Your task to perform on an android device: Open Maps and search for coffee Image 0: 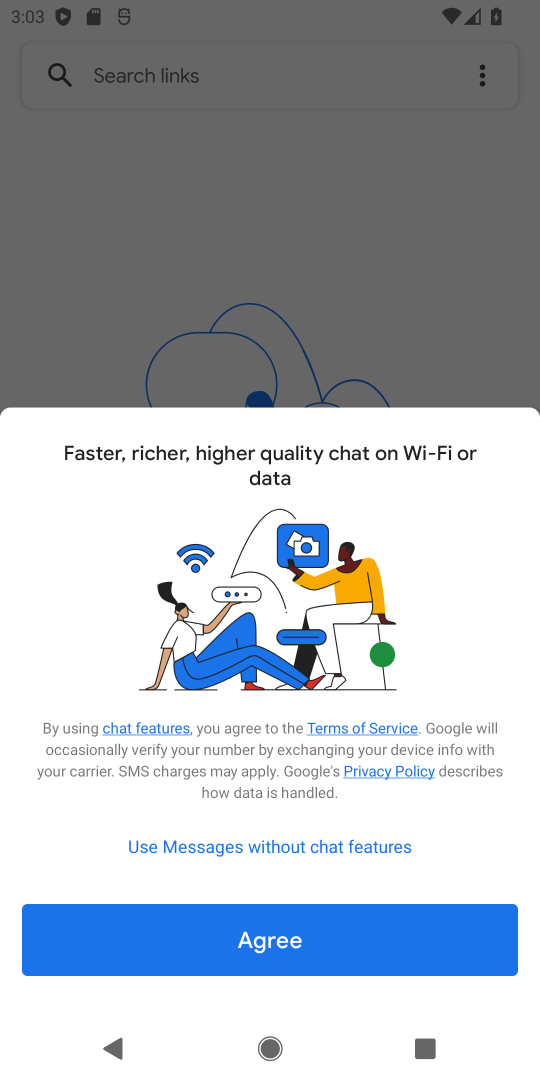
Step 0: press back button
Your task to perform on an android device: Open Maps and search for coffee Image 1: 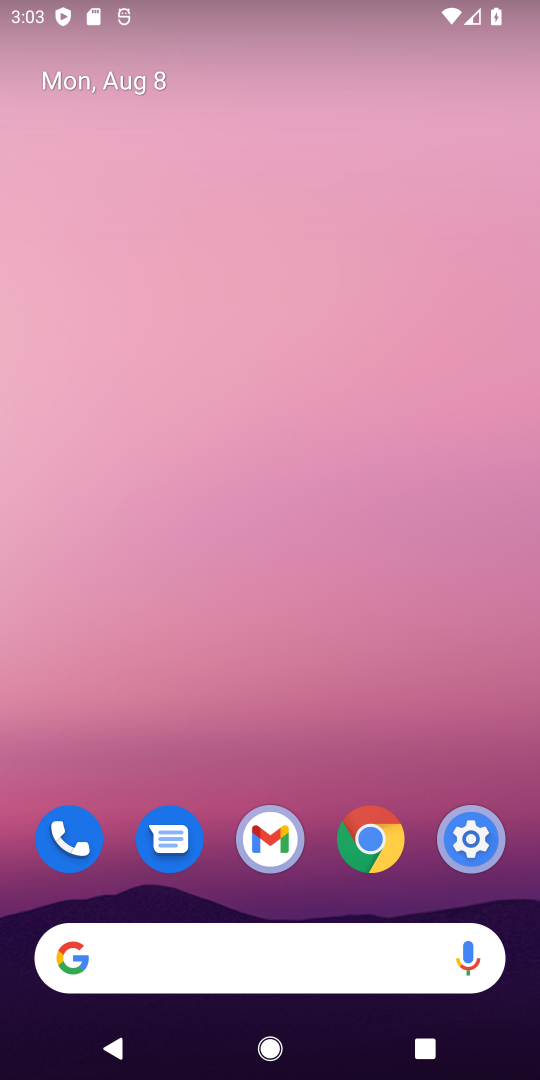
Step 1: drag from (304, 914) to (293, 105)
Your task to perform on an android device: Open Maps and search for coffee Image 2: 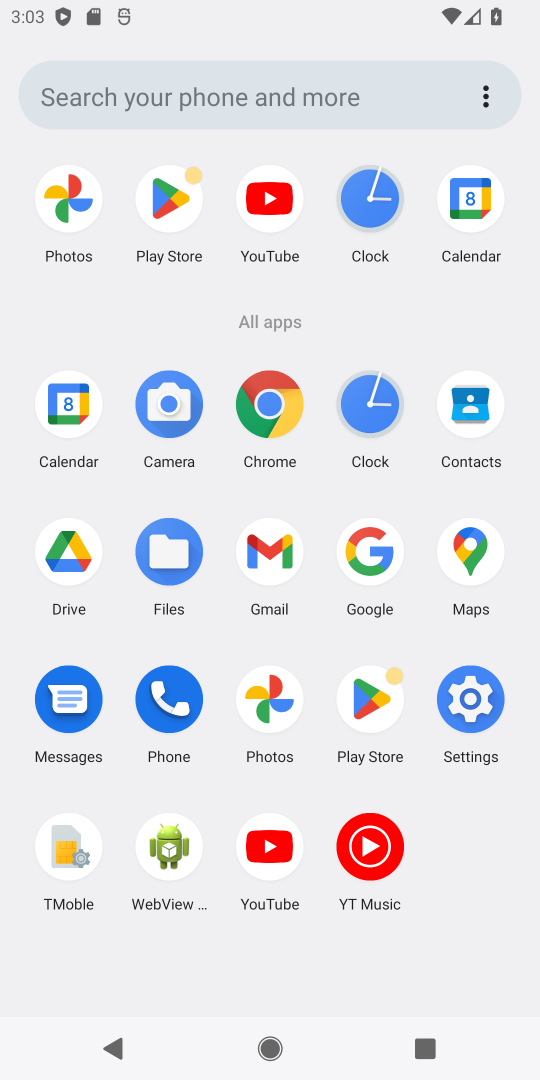
Step 2: click (478, 551)
Your task to perform on an android device: Open Maps and search for coffee Image 3: 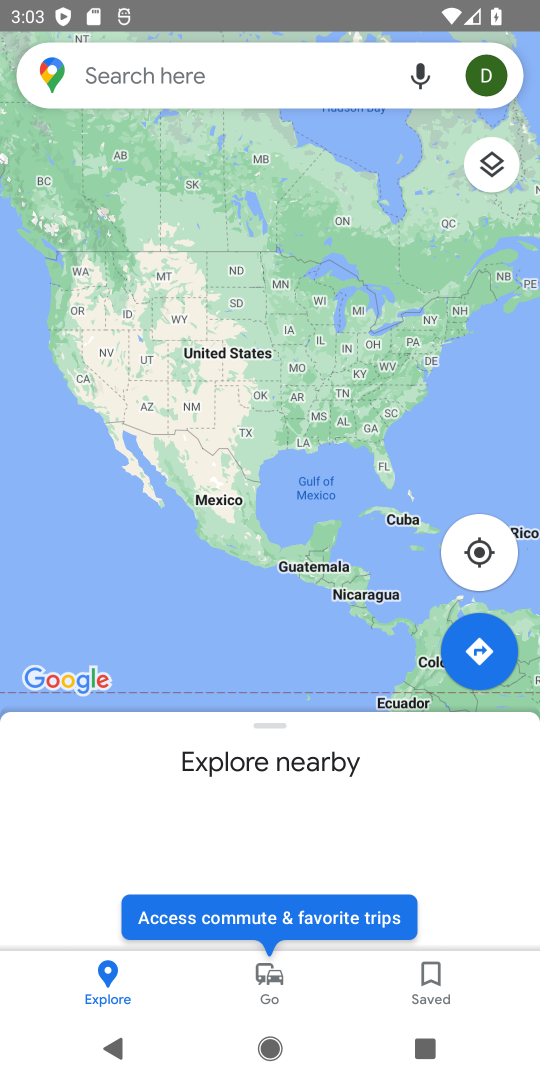
Step 3: click (216, 83)
Your task to perform on an android device: Open Maps and search for coffee Image 4: 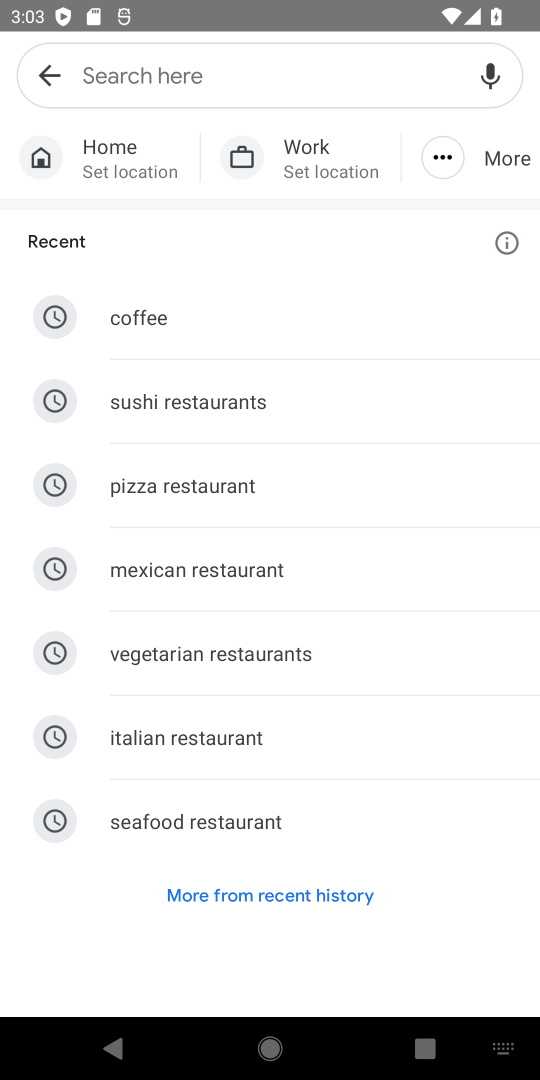
Step 4: click (131, 300)
Your task to perform on an android device: Open Maps and search for coffee Image 5: 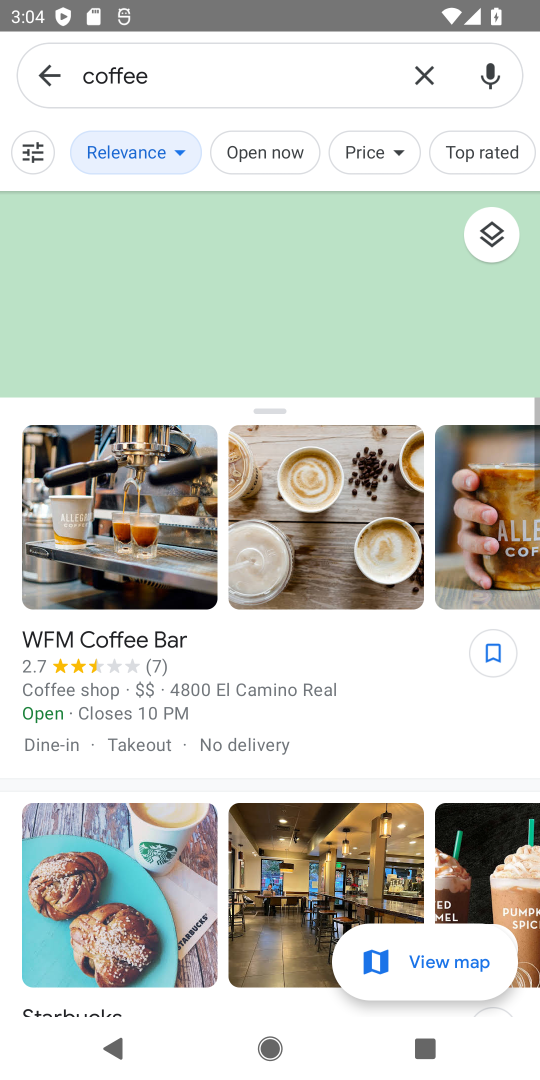
Step 5: task complete